Your task to perform on an android device: Go to ESPN.com Image 0: 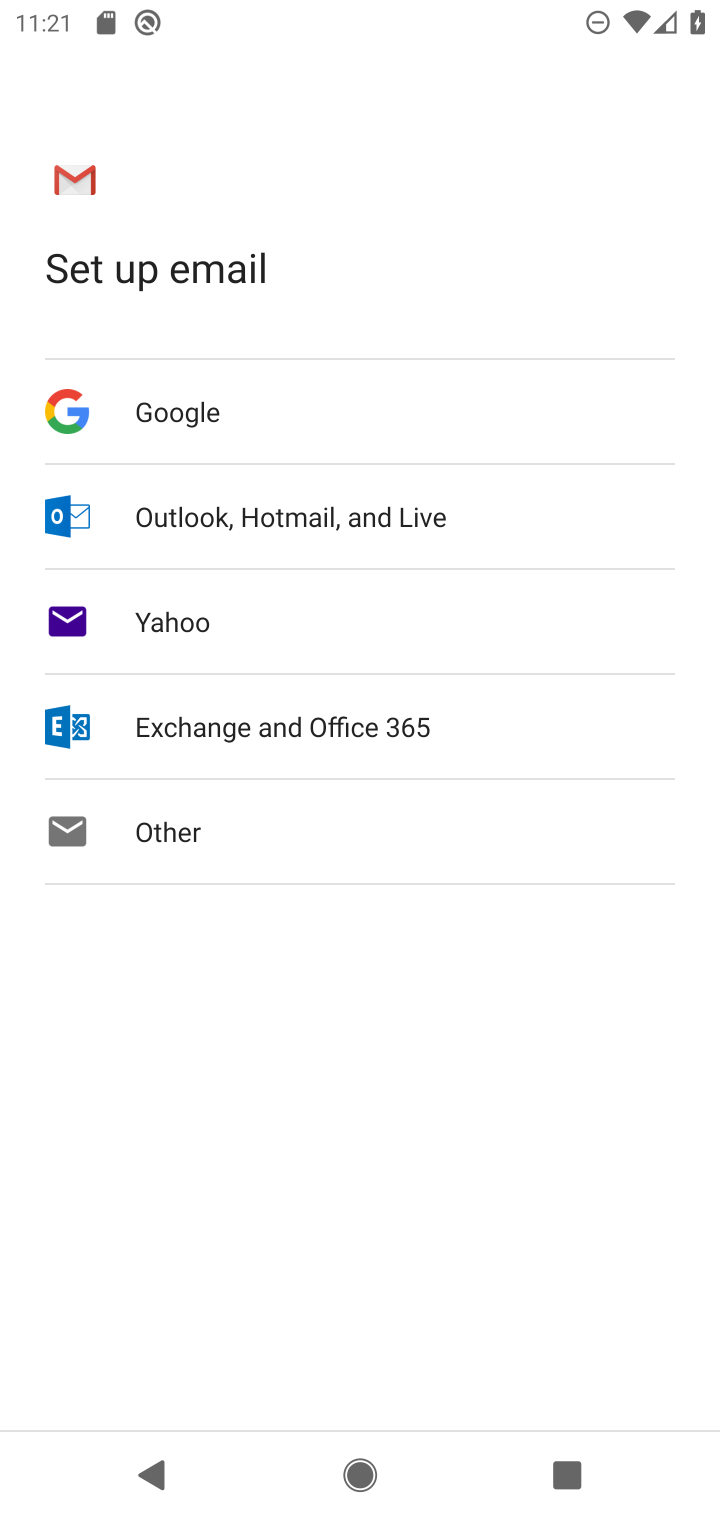
Step 0: press home button
Your task to perform on an android device: Go to ESPN.com Image 1: 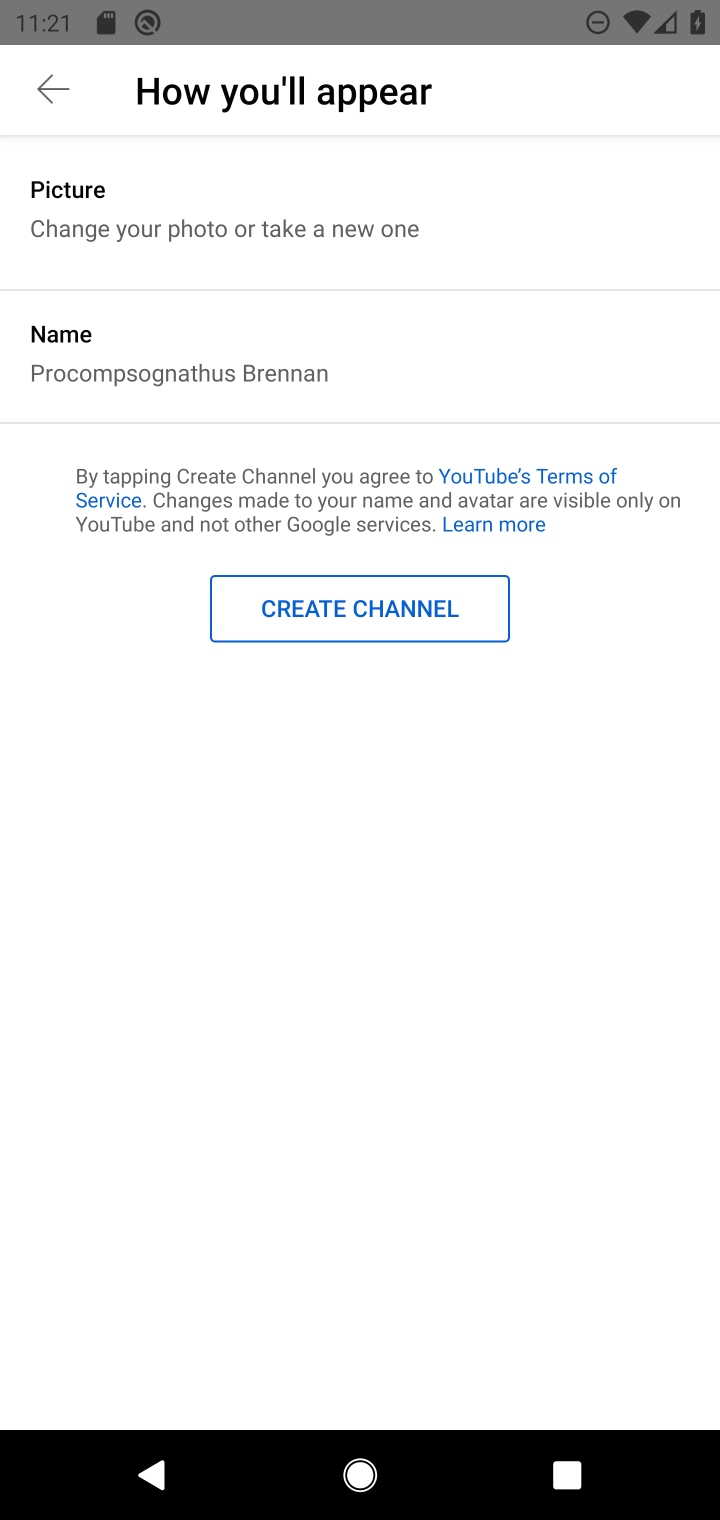
Step 1: press home button
Your task to perform on an android device: Go to ESPN.com Image 2: 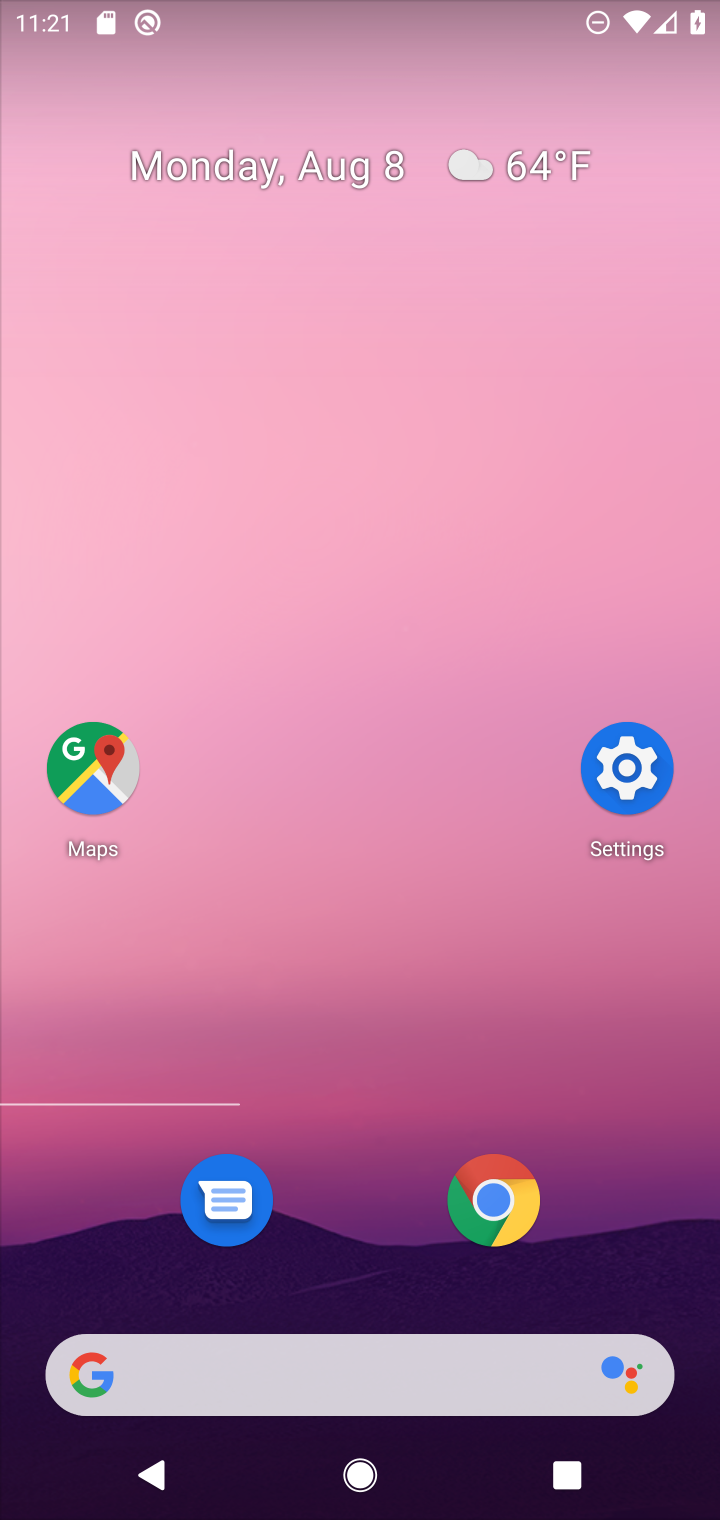
Step 2: press home button
Your task to perform on an android device: Go to ESPN.com Image 3: 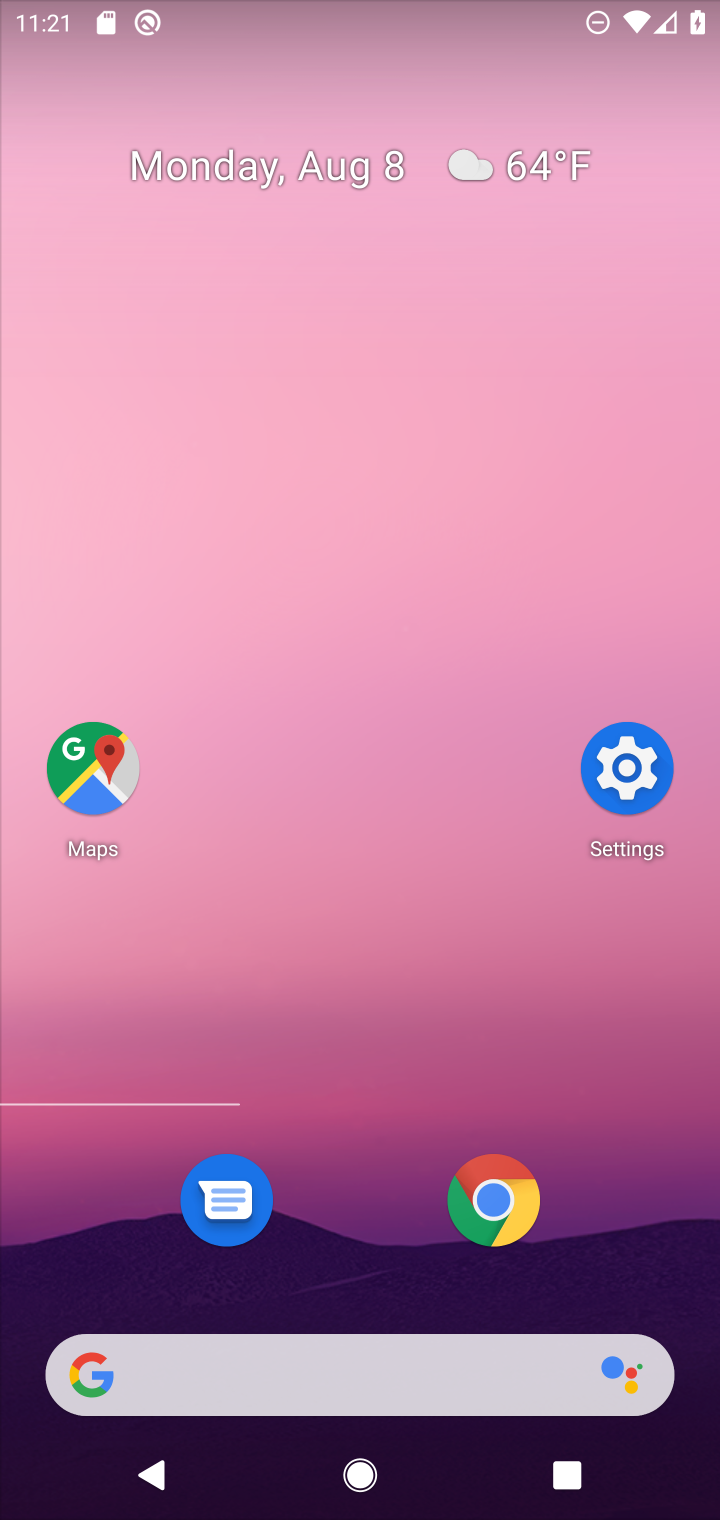
Step 3: click (510, 1196)
Your task to perform on an android device: Go to ESPN.com Image 4: 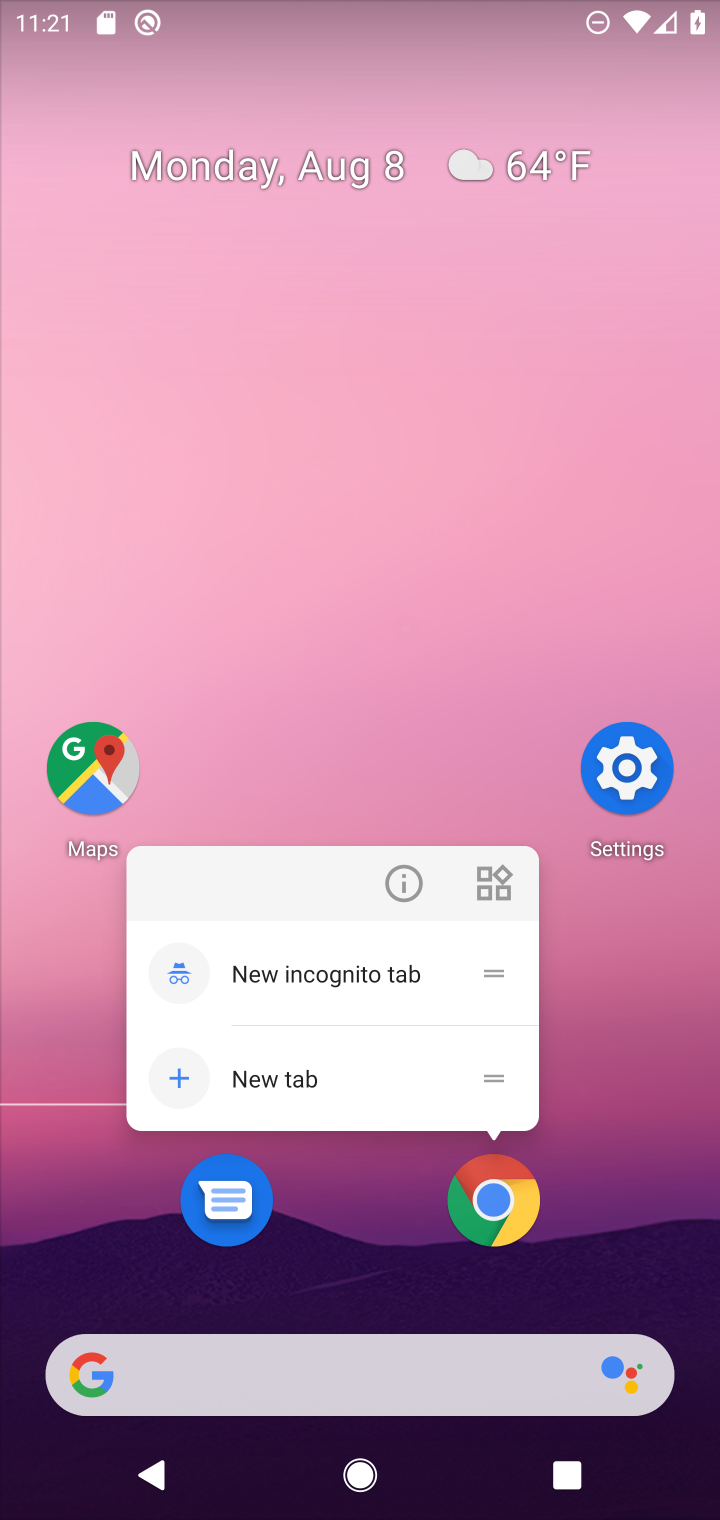
Step 4: click (510, 1196)
Your task to perform on an android device: Go to ESPN.com Image 5: 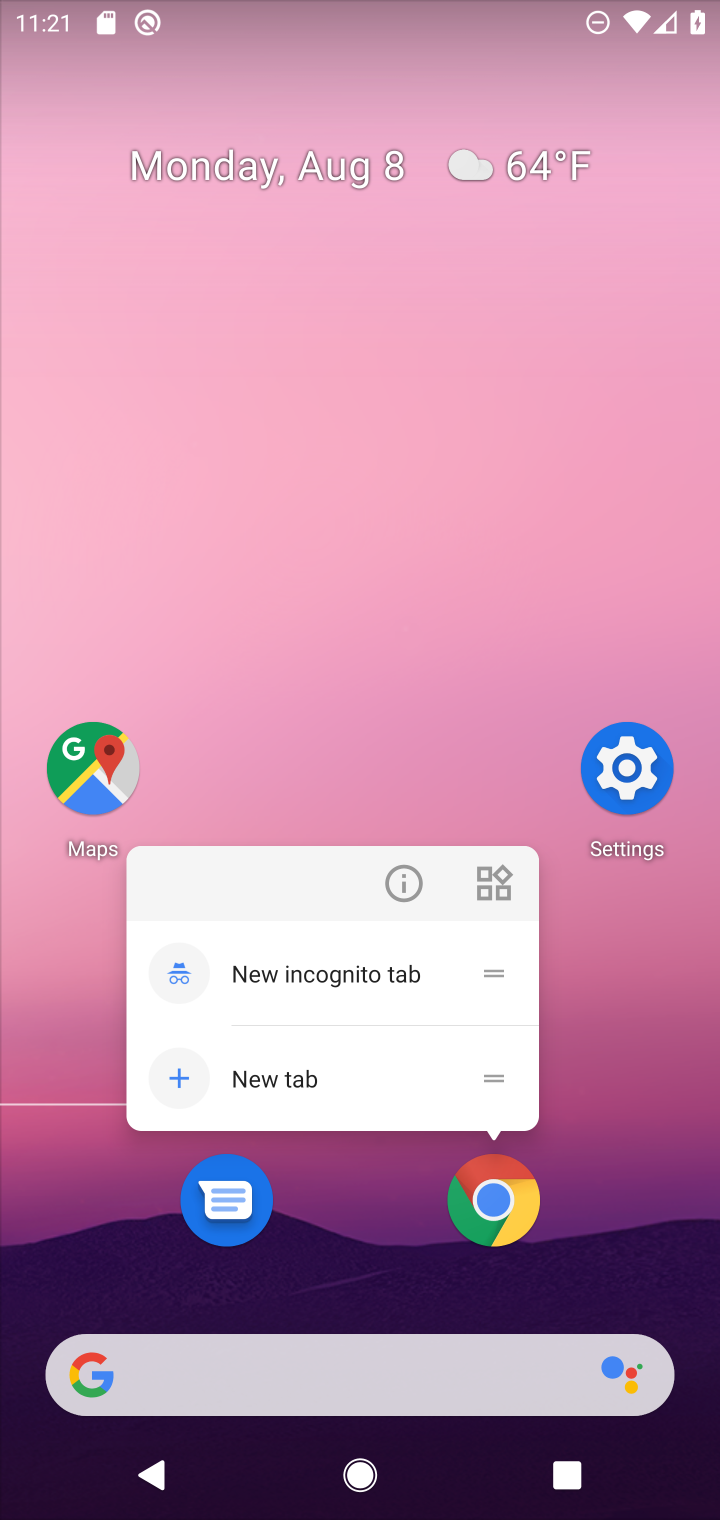
Step 5: click (510, 1195)
Your task to perform on an android device: Go to ESPN.com Image 6: 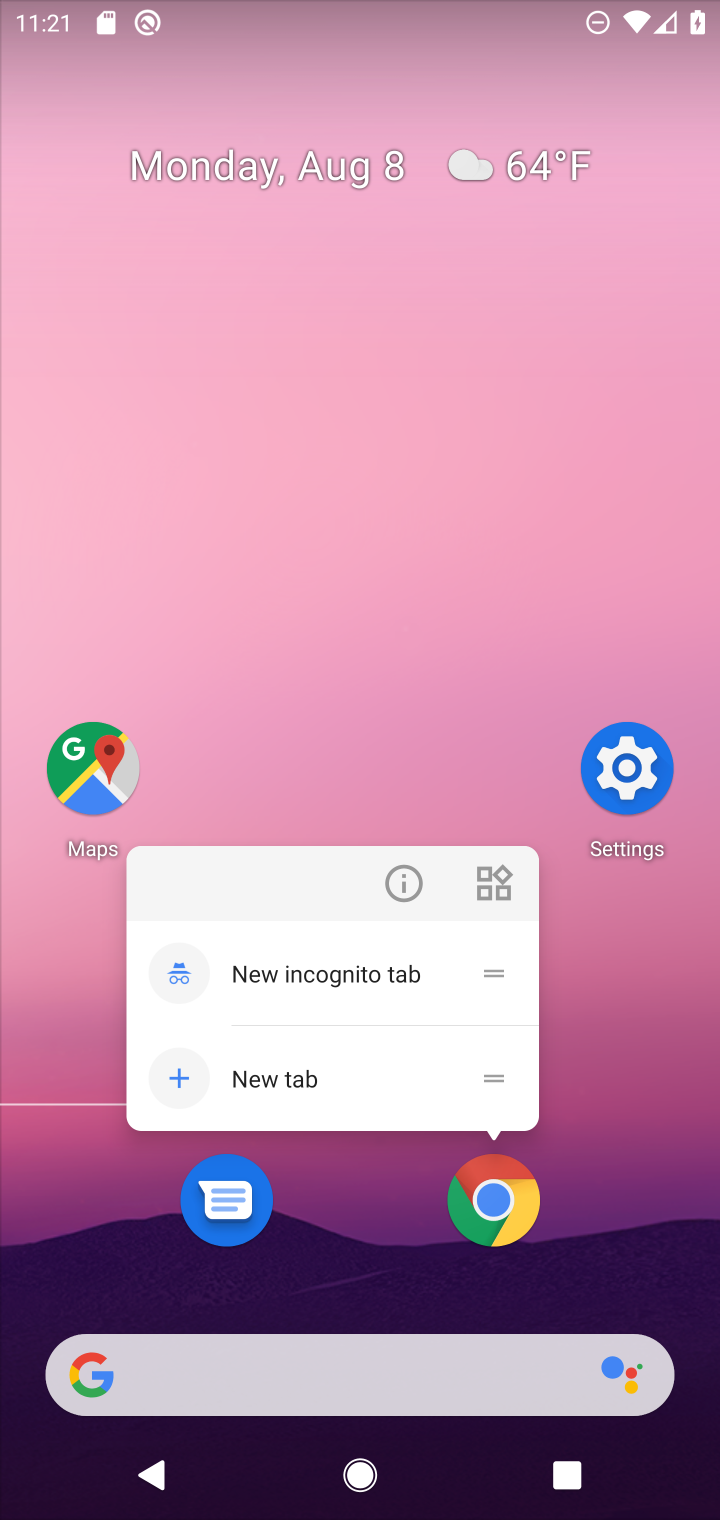
Step 6: click (496, 1195)
Your task to perform on an android device: Go to ESPN.com Image 7: 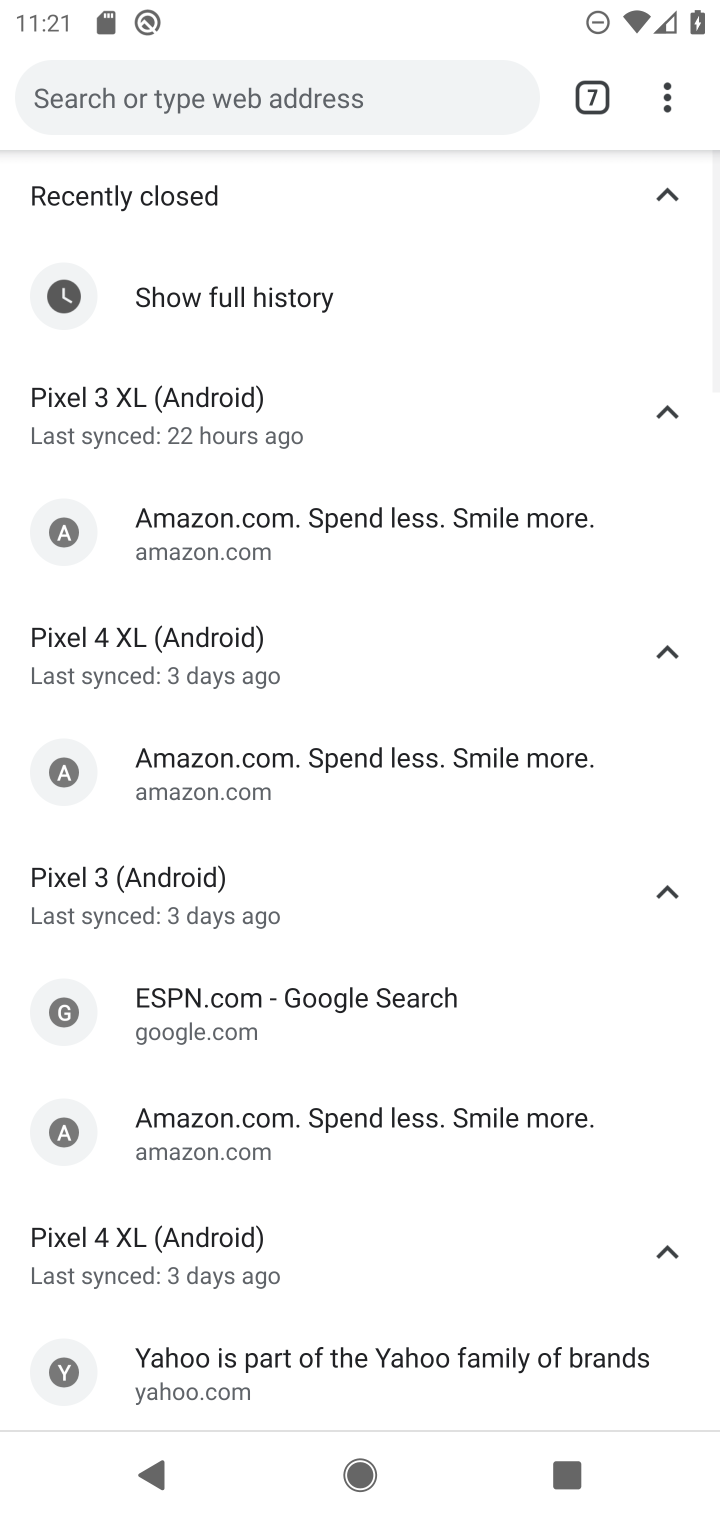
Step 7: drag from (667, 96) to (393, 297)
Your task to perform on an android device: Go to ESPN.com Image 8: 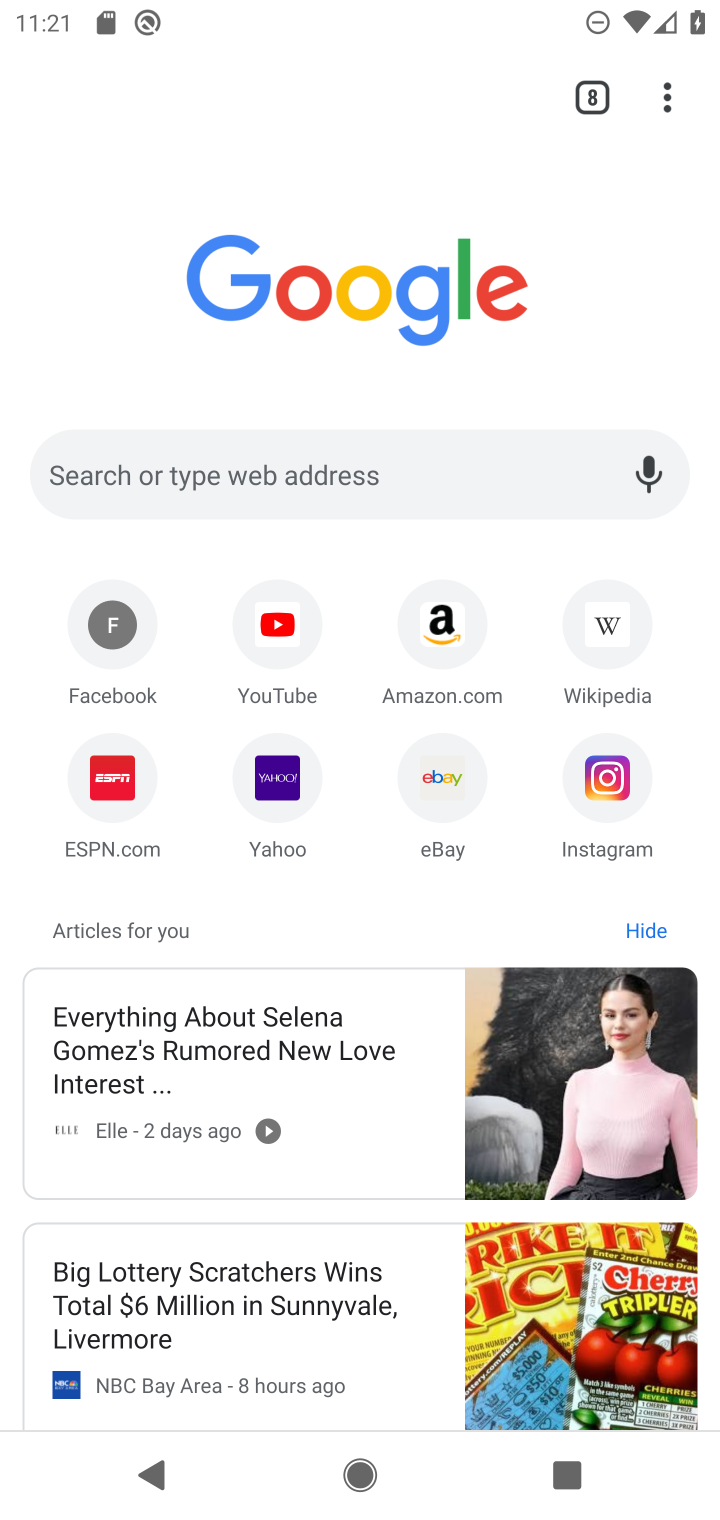
Step 8: click (122, 772)
Your task to perform on an android device: Go to ESPN.com Image 9: 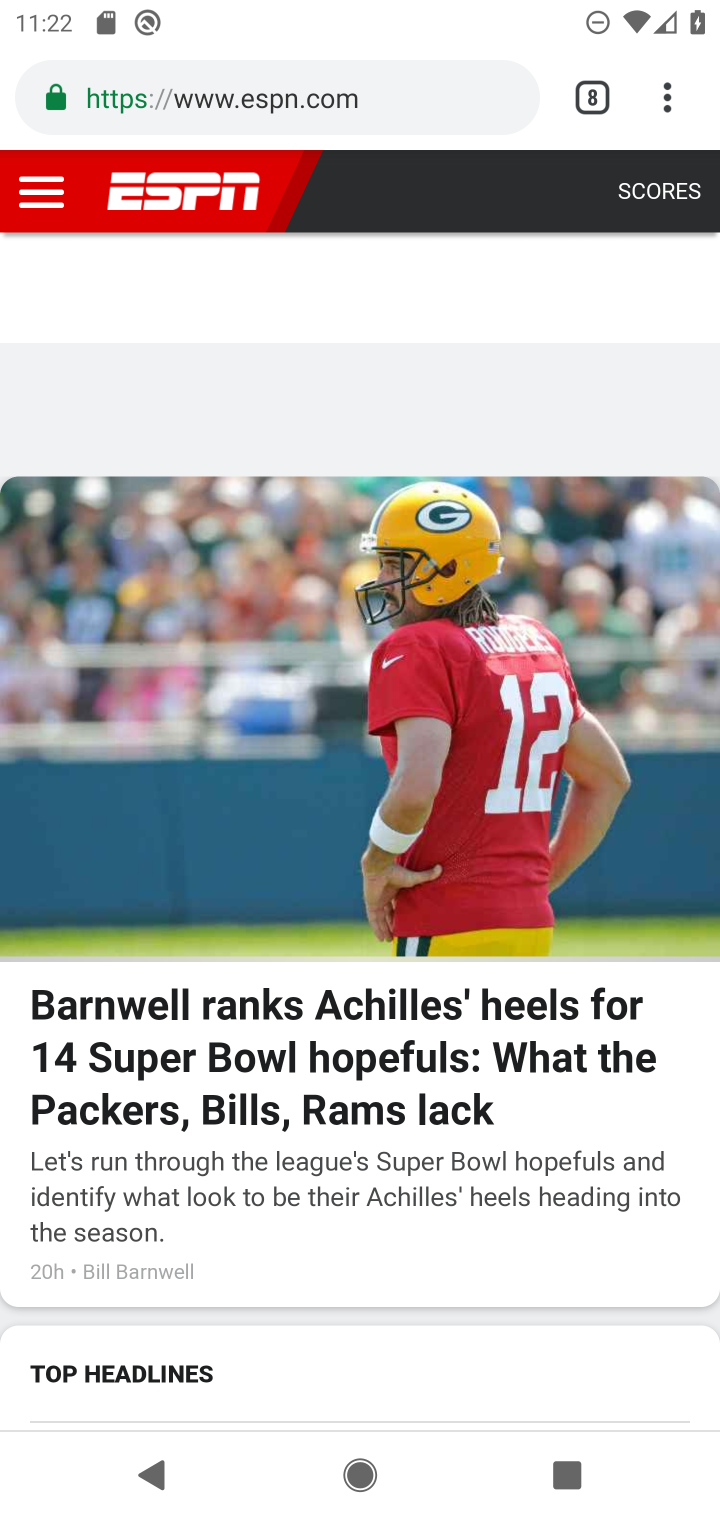
Step 9: task complete